Your task to perform on an android device: Open the phone app and click the voicemail tab. Image 0: 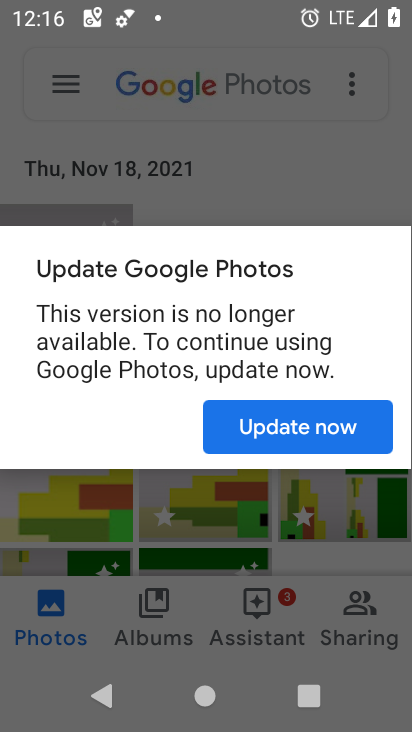
Step 0: press home button
Your task to perform on an android device: Open the phone app and click the voicemail tab. Image 1: 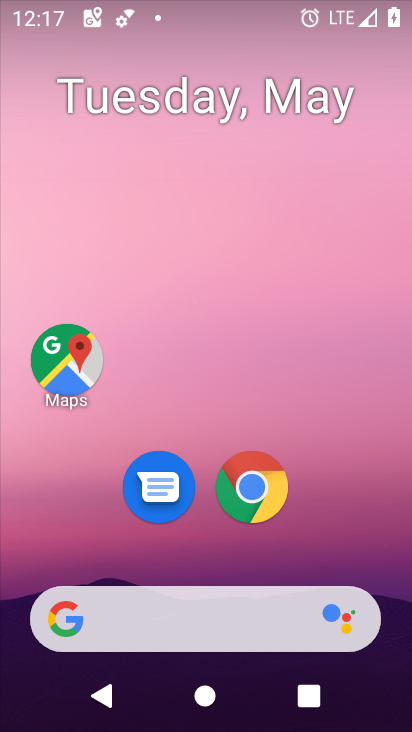
Step 1: drag from (71, 351) to (169, 113)
Your task to perform on an android device: Open the phone app and click the voicemail tab. Image 2: 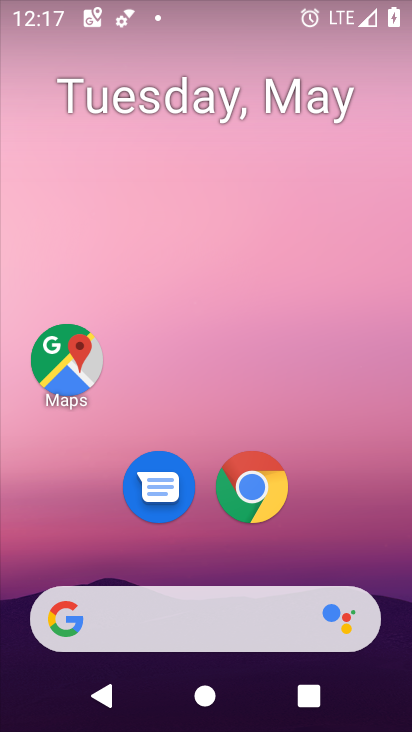
Step 2: drag from (71, 492) to (296, 118)
Your task to perform on an android device: Open the phone app and click the voicemail tab. Image 3: 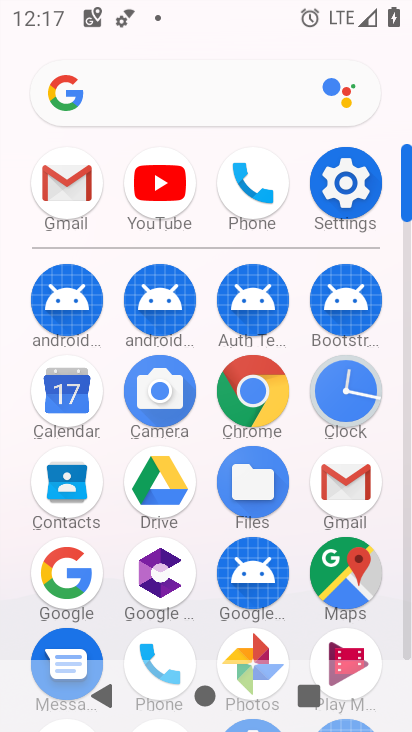
Step 3: click (349, 643)
Your task to perform on an android device: Open the phone app and click the voicemail tab. Image 4: 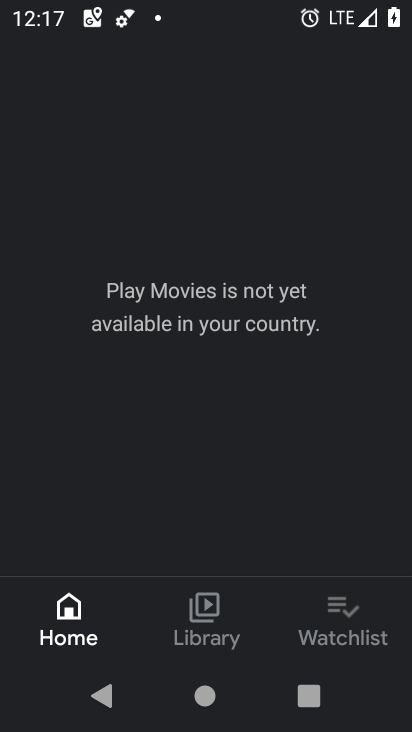
Step 4: click (339, 631)
Your task to perform on an android device: Open the phone app and click the voicemail tab. Image 5: 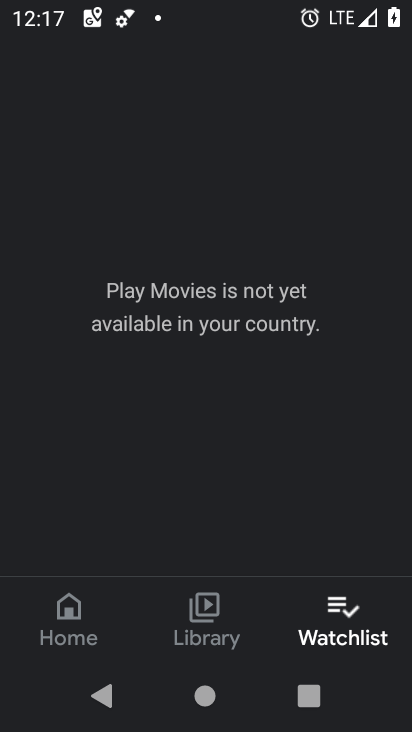
Step 5: task complete